Your task to perform on an android device: remove spam from my inbox in the gmail app Image 0: 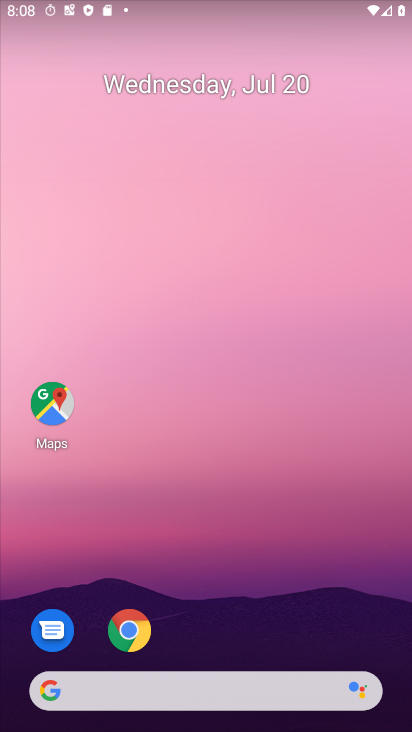
Step 0: drag from (216, 628) to (223, 125)
Your task to perform on an android device: remove spam from my inbox in the gmail app Image 1: 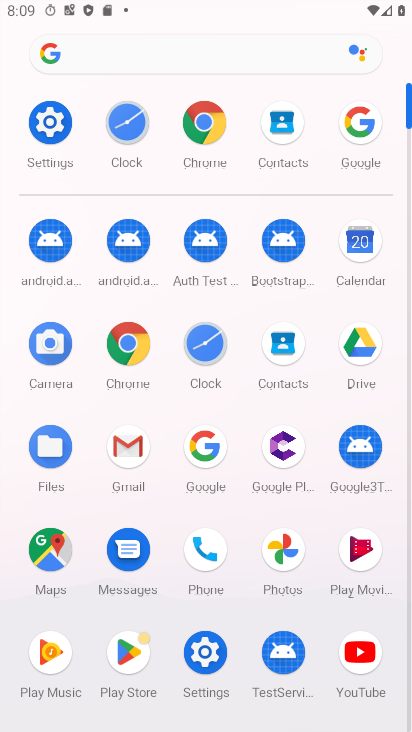
Step 1: click (133, 460)
Your task to perform on an android device: remove spam from my inbox in the gmail app Image 2: 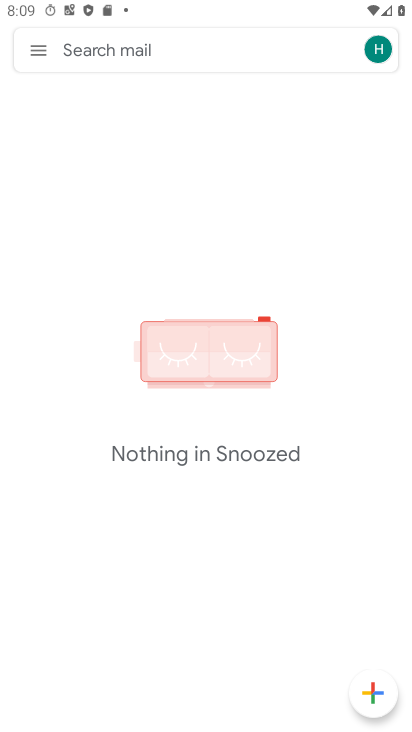
Step 2: click (39, 43)
Your task to perform on an android device: remove spam from my inbox in the gmail app Image 3: 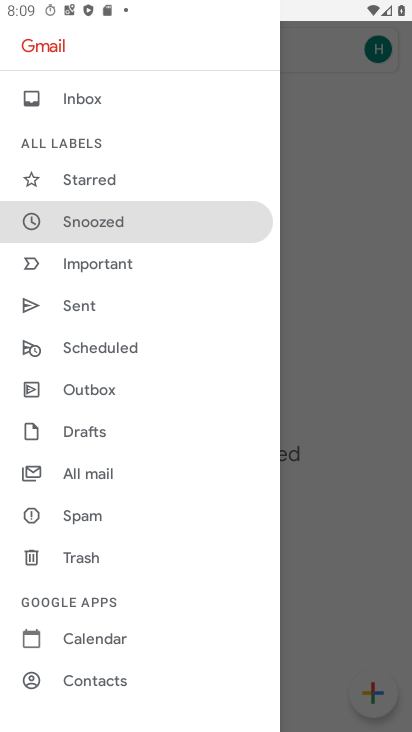
Step 3: click (137, 478)
Your task to perform on an android device: remove spam from my inbox in the gmail app Image 4: 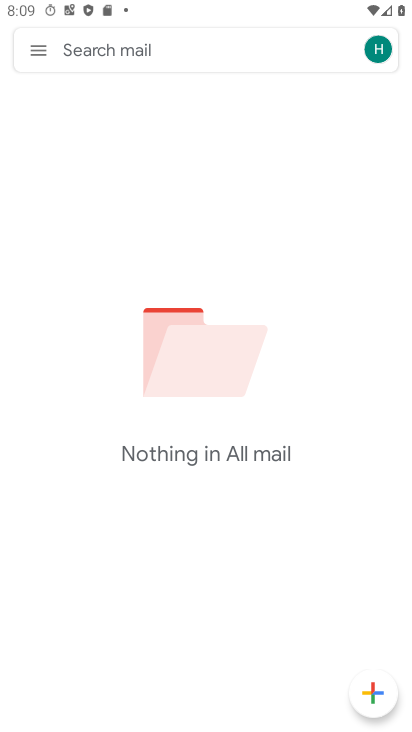
Step 4: task complete